Your task to perform on an android device: Empty the shopping cart on amazon.com. Image 0: 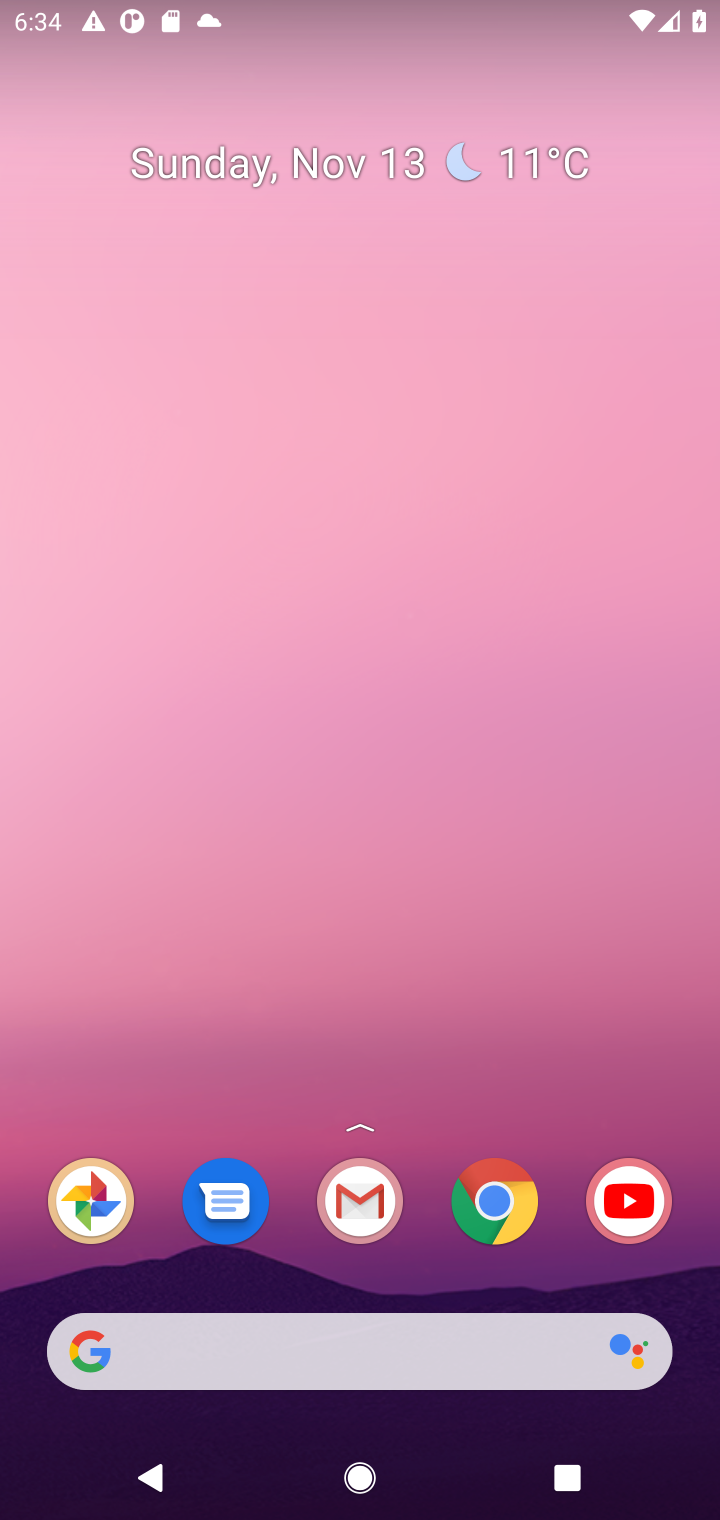
Step 0: drag from (431, 1249) to (273, 279)
Your task to perform on an android device: Empty the shopping cart on amazon.com. Image 1: 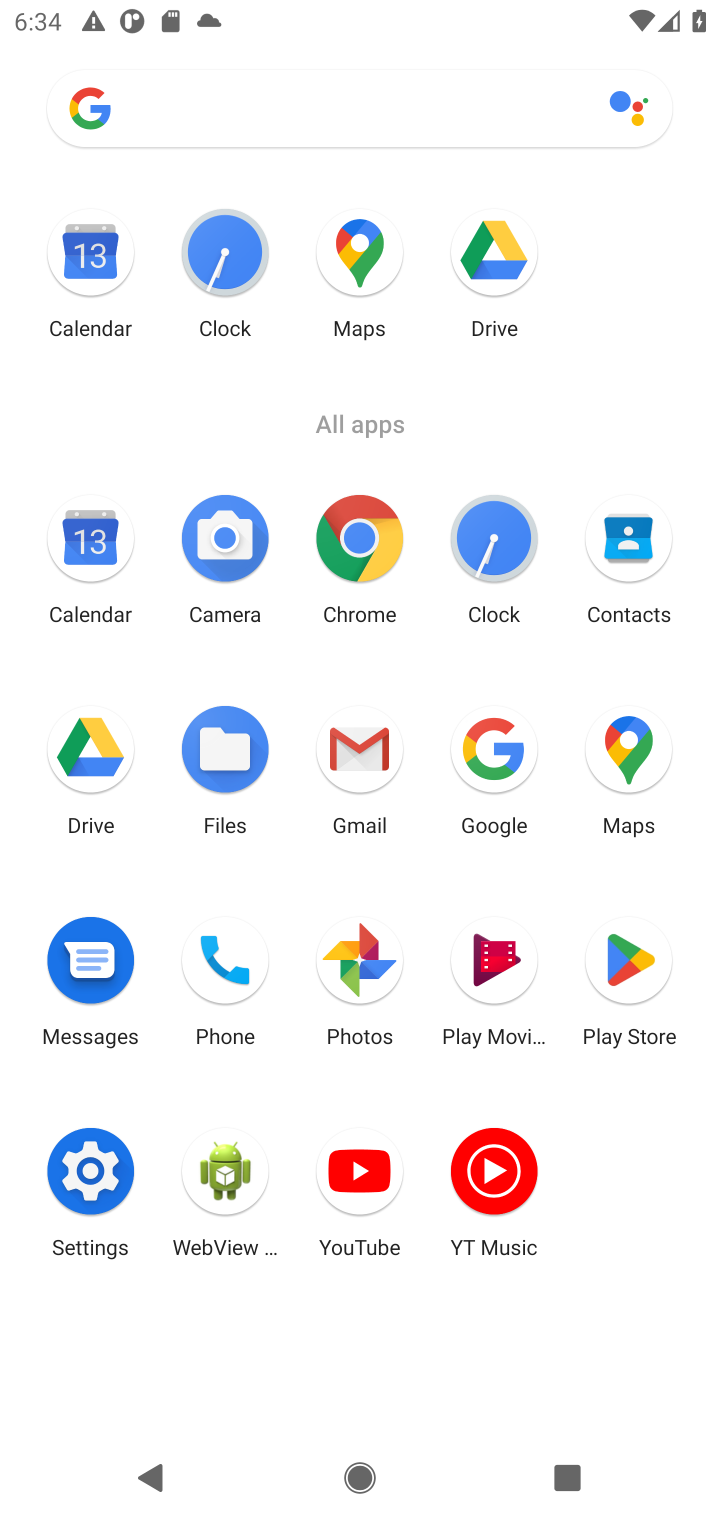
Step 1: click (362, 533)
Your task to perform on an android device: Empty the shopping cart on amazon.com. Image 2: 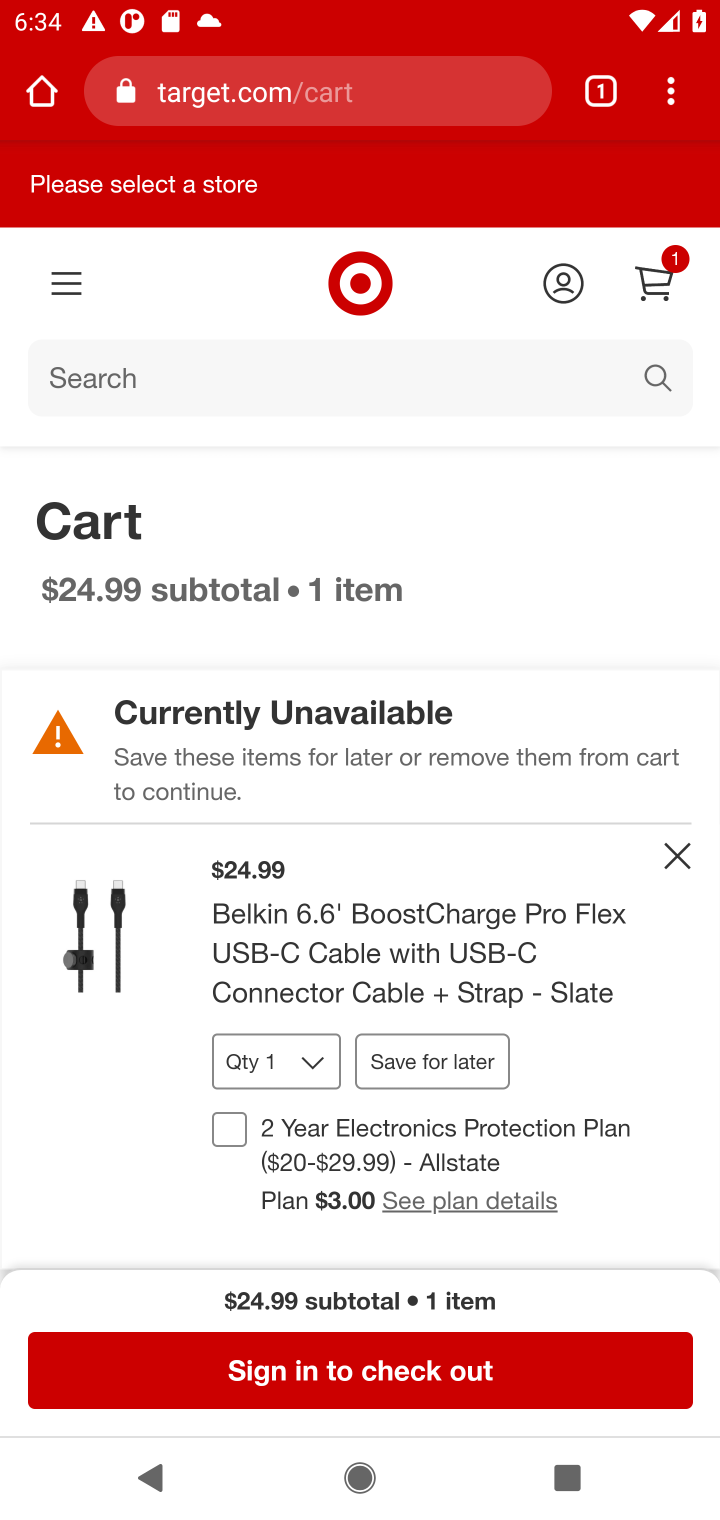
Step 2: click (285, 92)
Your task to perform on an android device: Empty the shopping cart on amazon.com. Image 3: 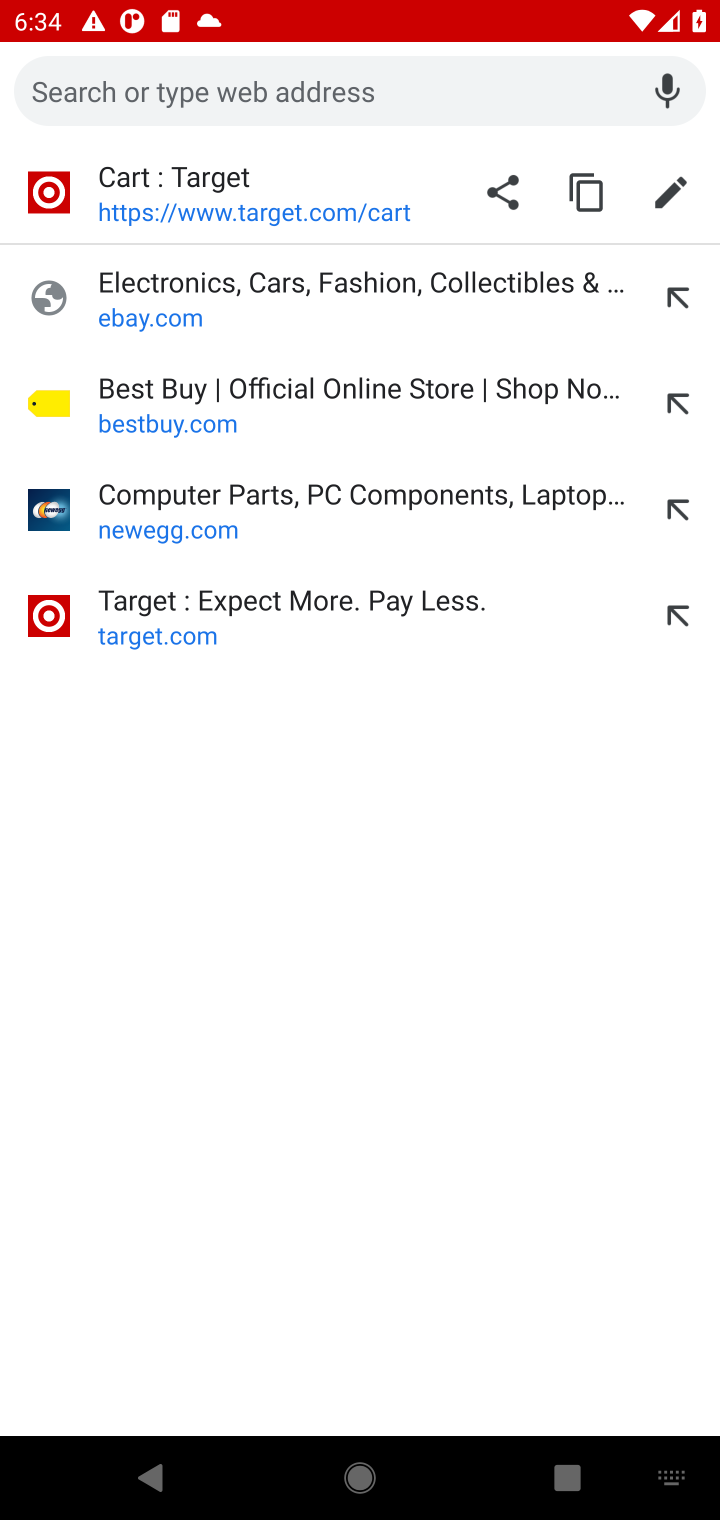
Step 3: type "amazon.com"
Your task to perform on an android device: Empty the shopping cart on amazon.com. Image 4: 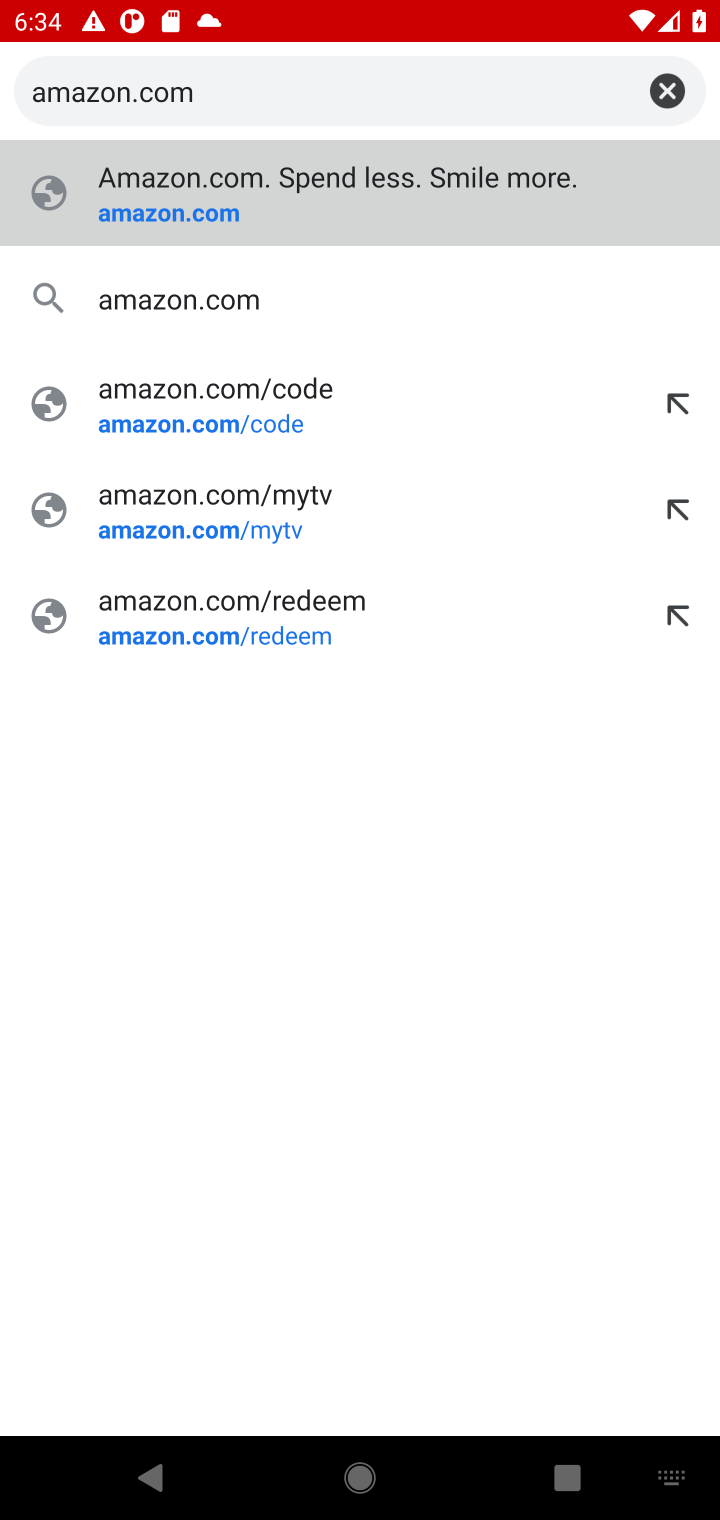
Step 4: press enter
Your task to perform on an android device: Empty the shopping cart on amazon.com. Image 5: 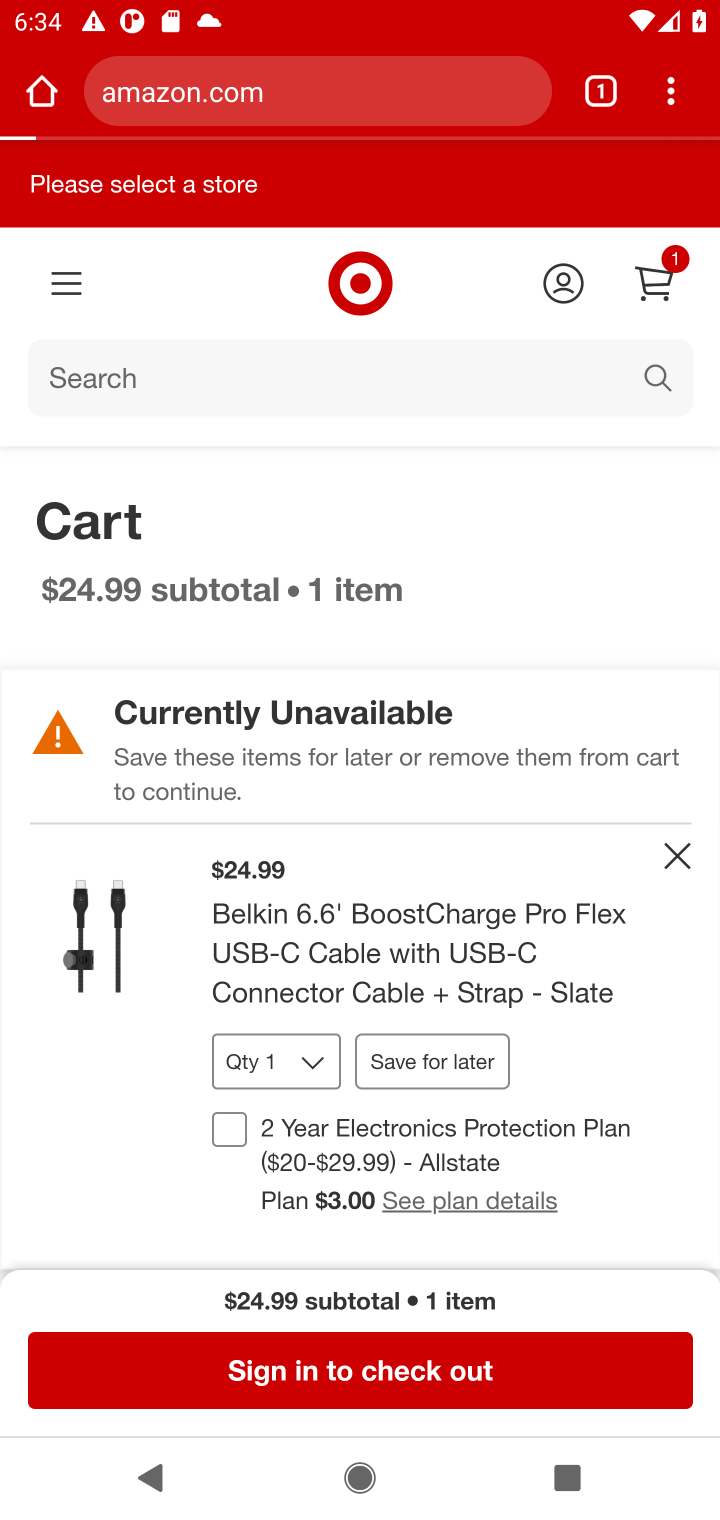
Step 5: press enter
Your task to perform on an android device: Empty the shopping cart on amazon.com. Image 6: 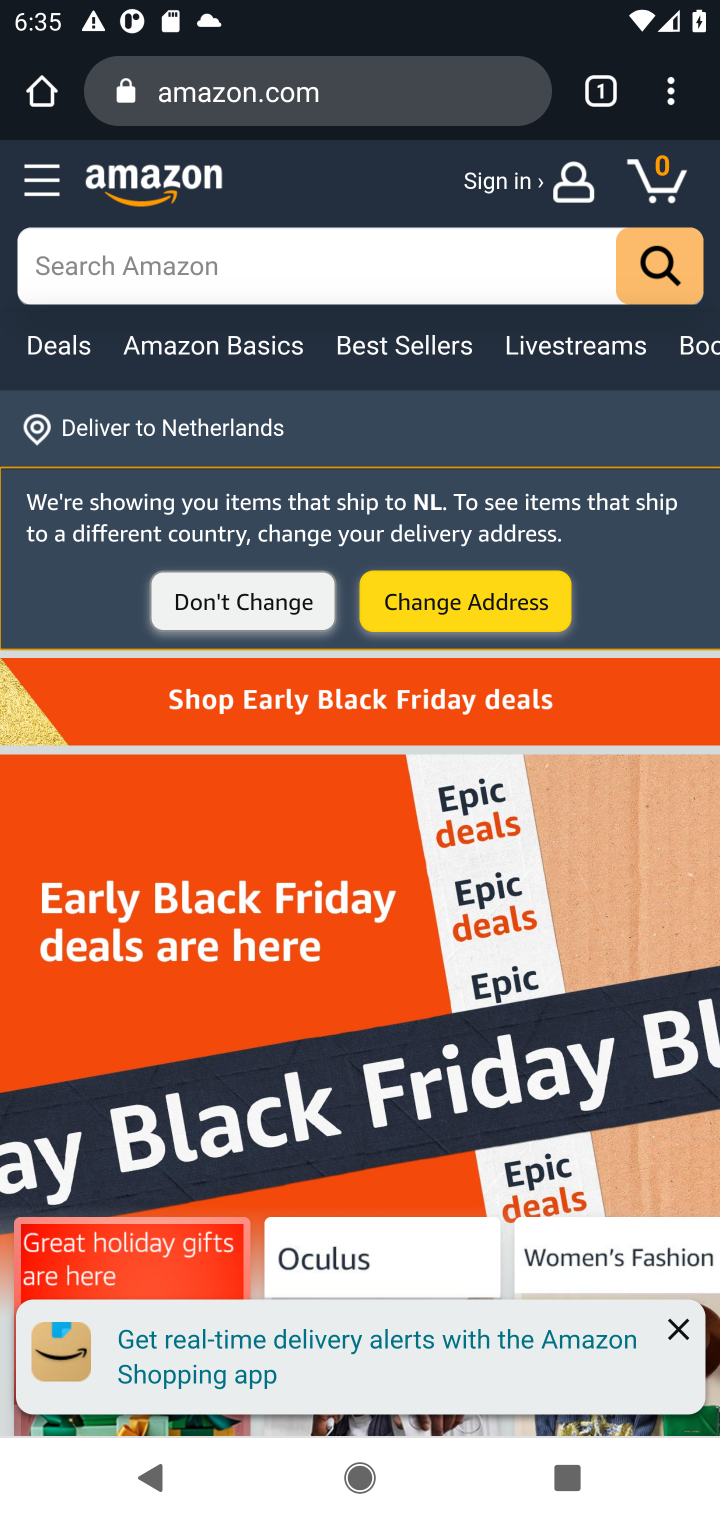
Step 6: click (636, 174)
Your task to perform on an android device: Empty the shopping cart on amazon.com. Image 7: 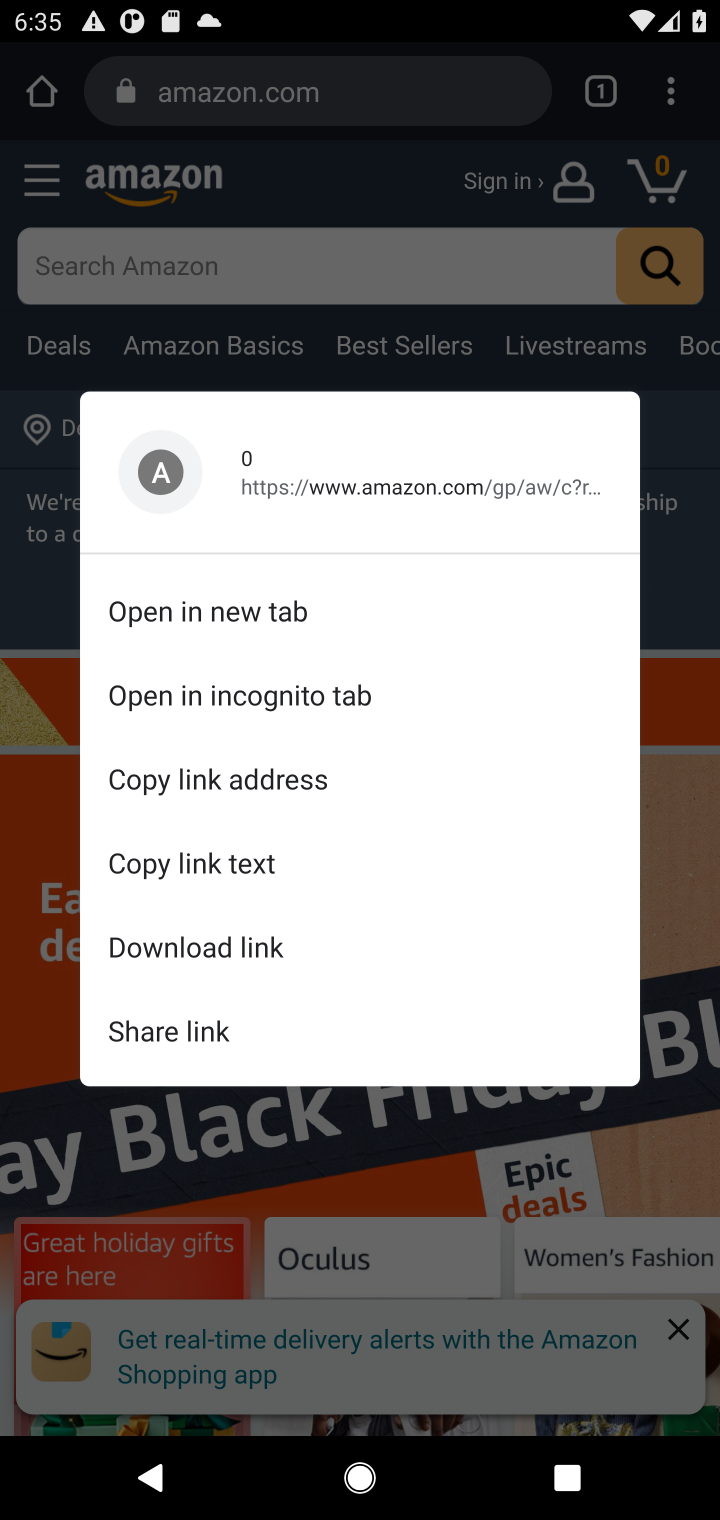
Step 7: click (625, 157)
Your task to perform on an android device: Empty the shopping cart on amazon.com. Image 8: 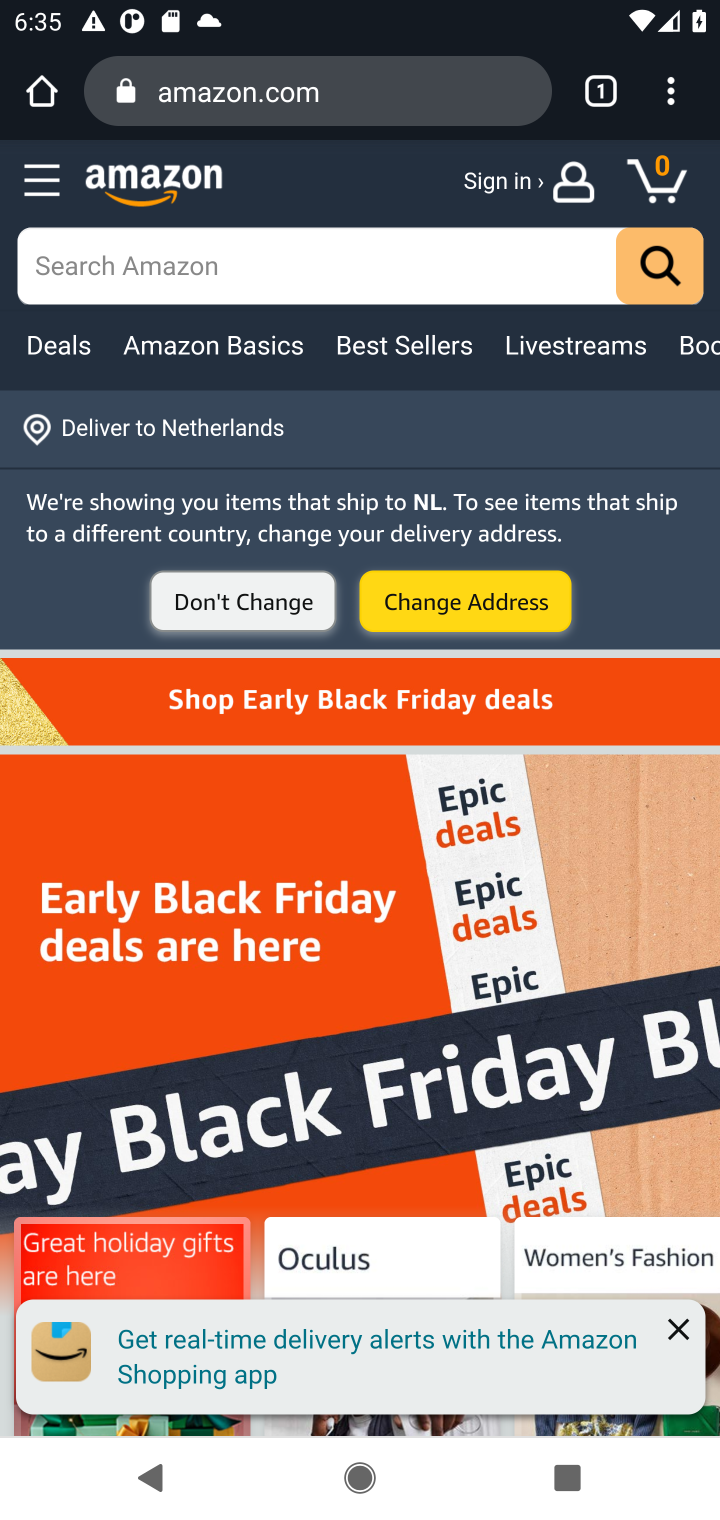
Step 8: click (668, 191)
Your task to perform on an android device: Empty the shopping cart on amazon.com. Image 9: 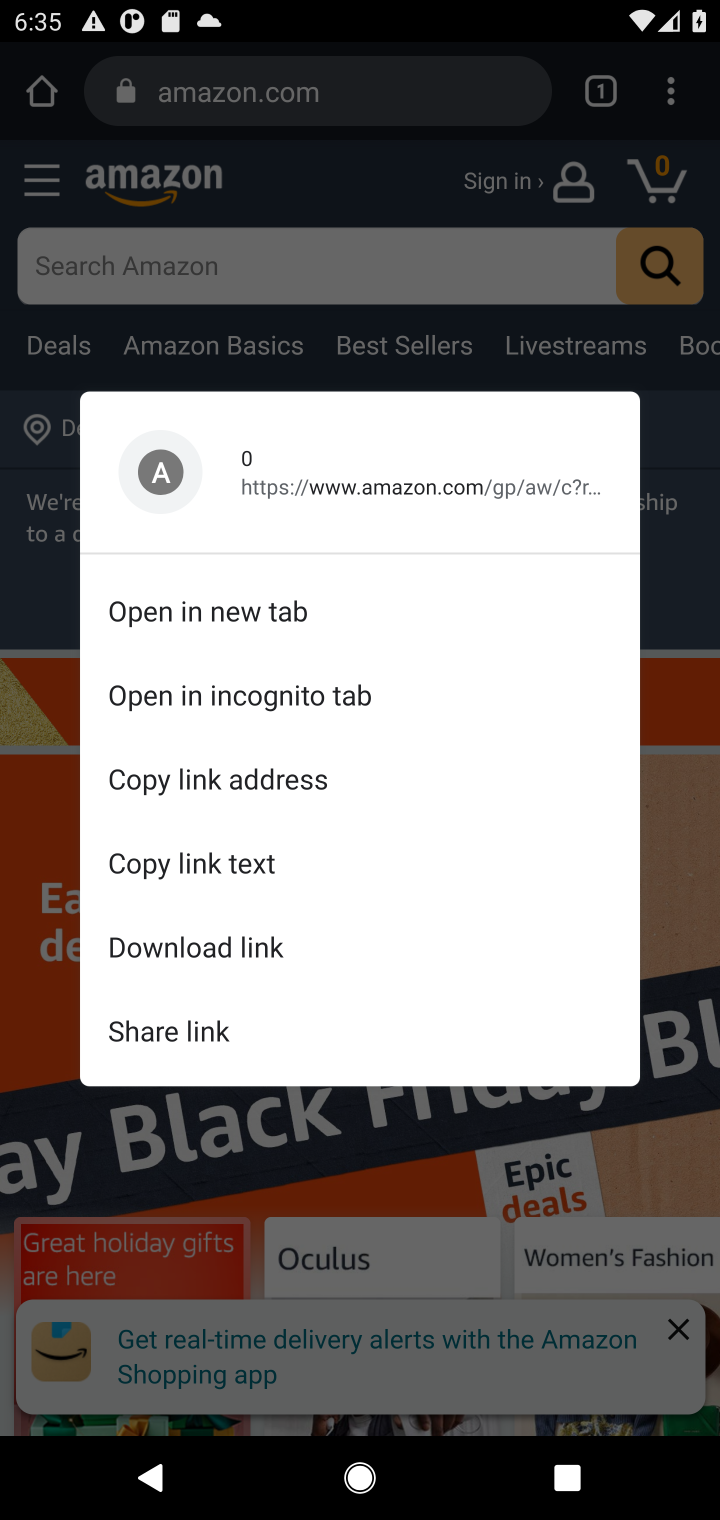
Step 9: click (241, 315)
Your task to perform on an android device: Empty the shopping cart on amazon.com. Image 10: 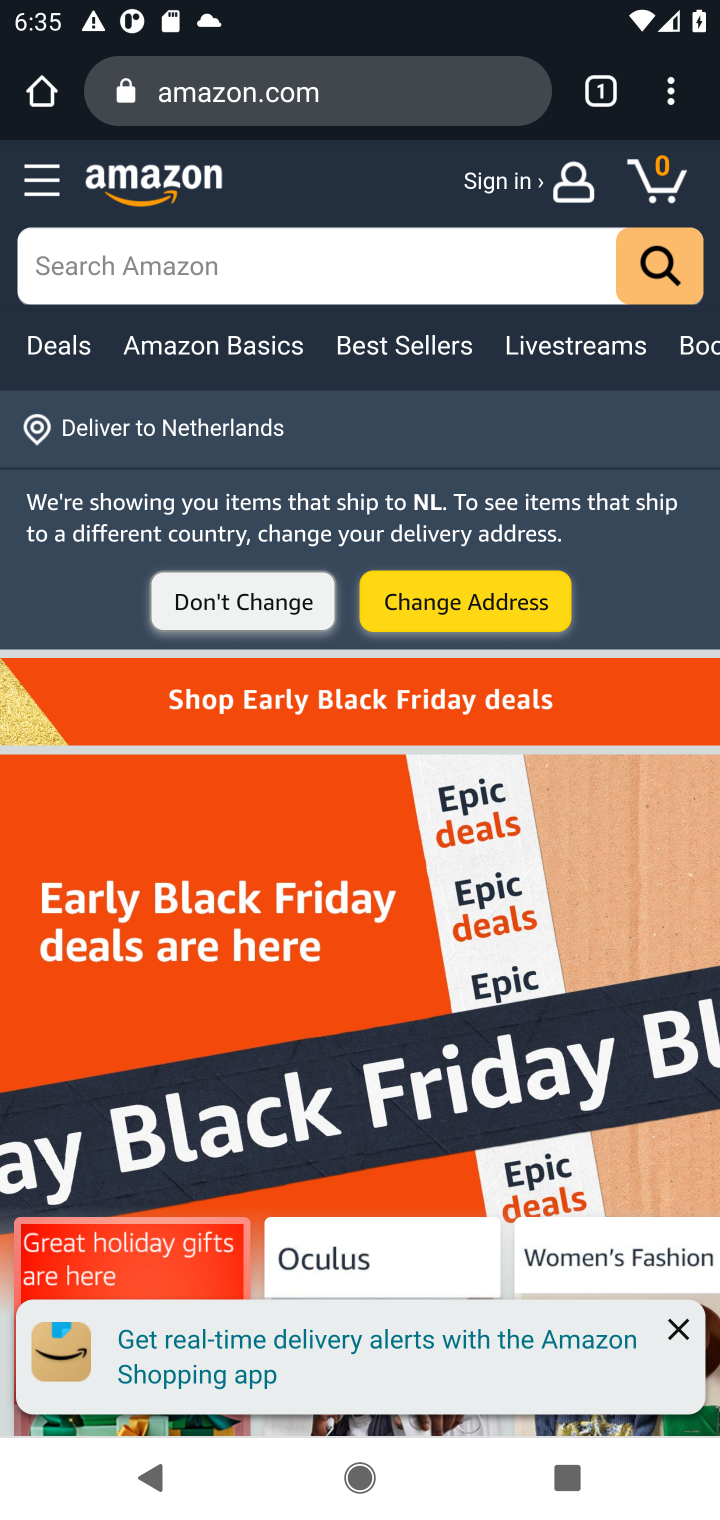
Step 10: click (671, 189)
Your task to perform on an android device: Empty the shopping cart on amazon.com. Image 11: 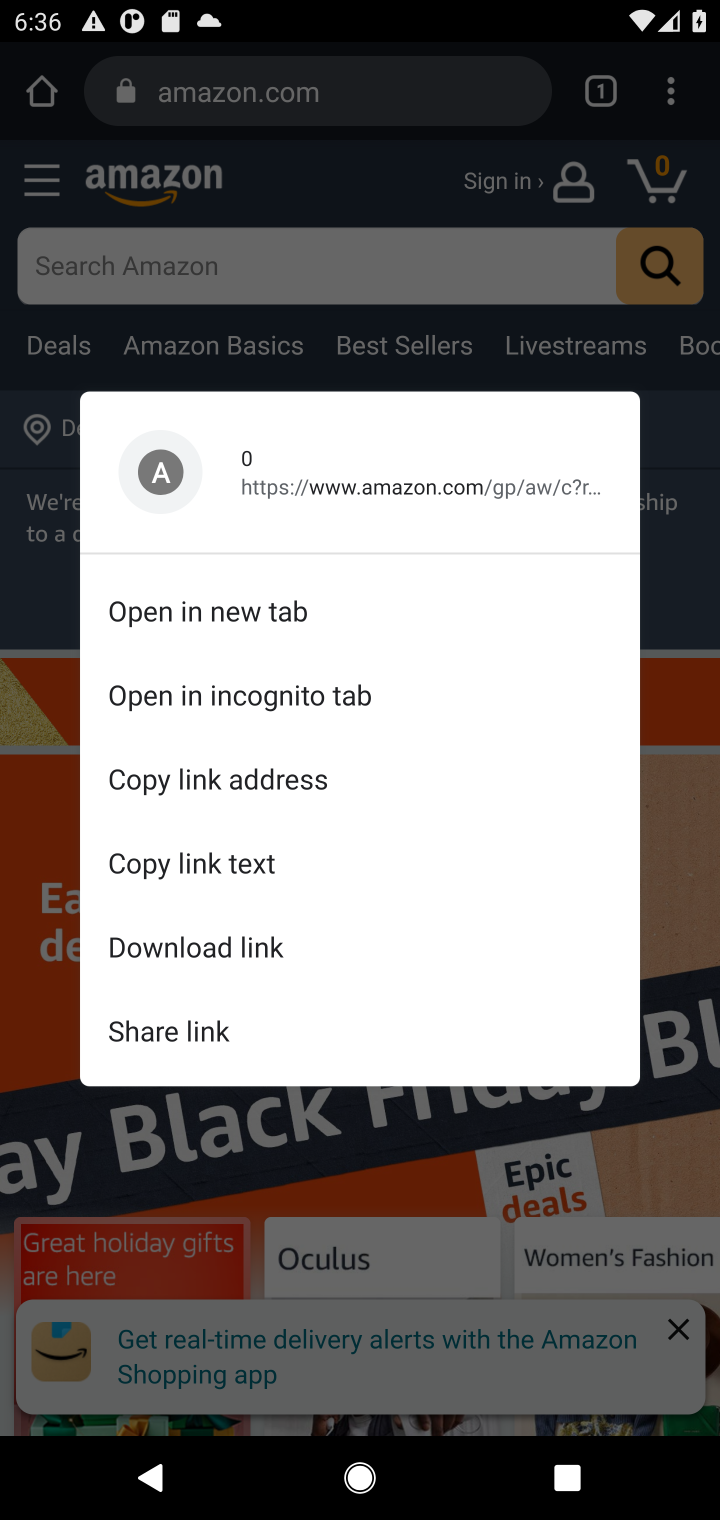
Step 11: click (407, 163)
Your task to perform on an android device: Empty the shopping cart on amazon.com. Image 12: 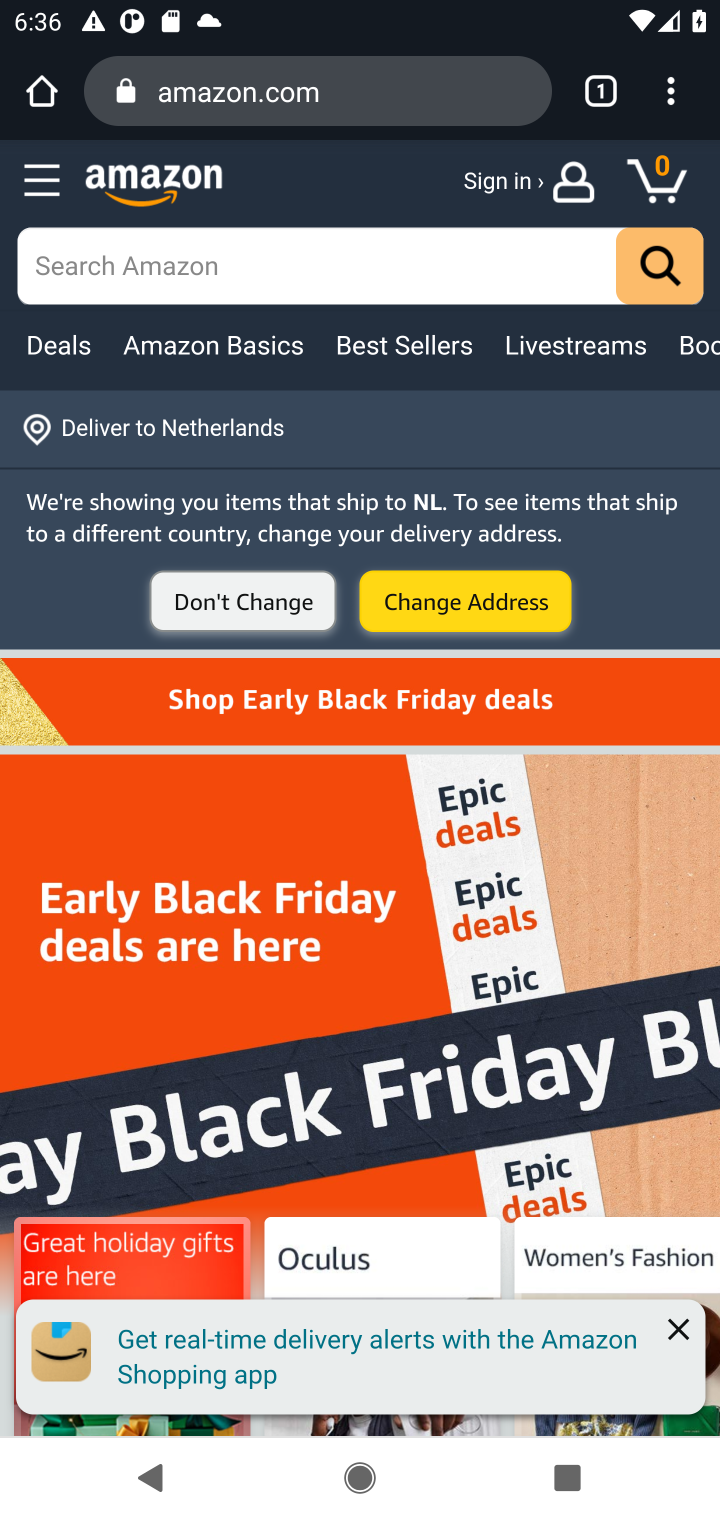
Step 12: click (656, 182)
Your task to perform on an android device: Empty the shopping cart on amazon.com. Image 13: 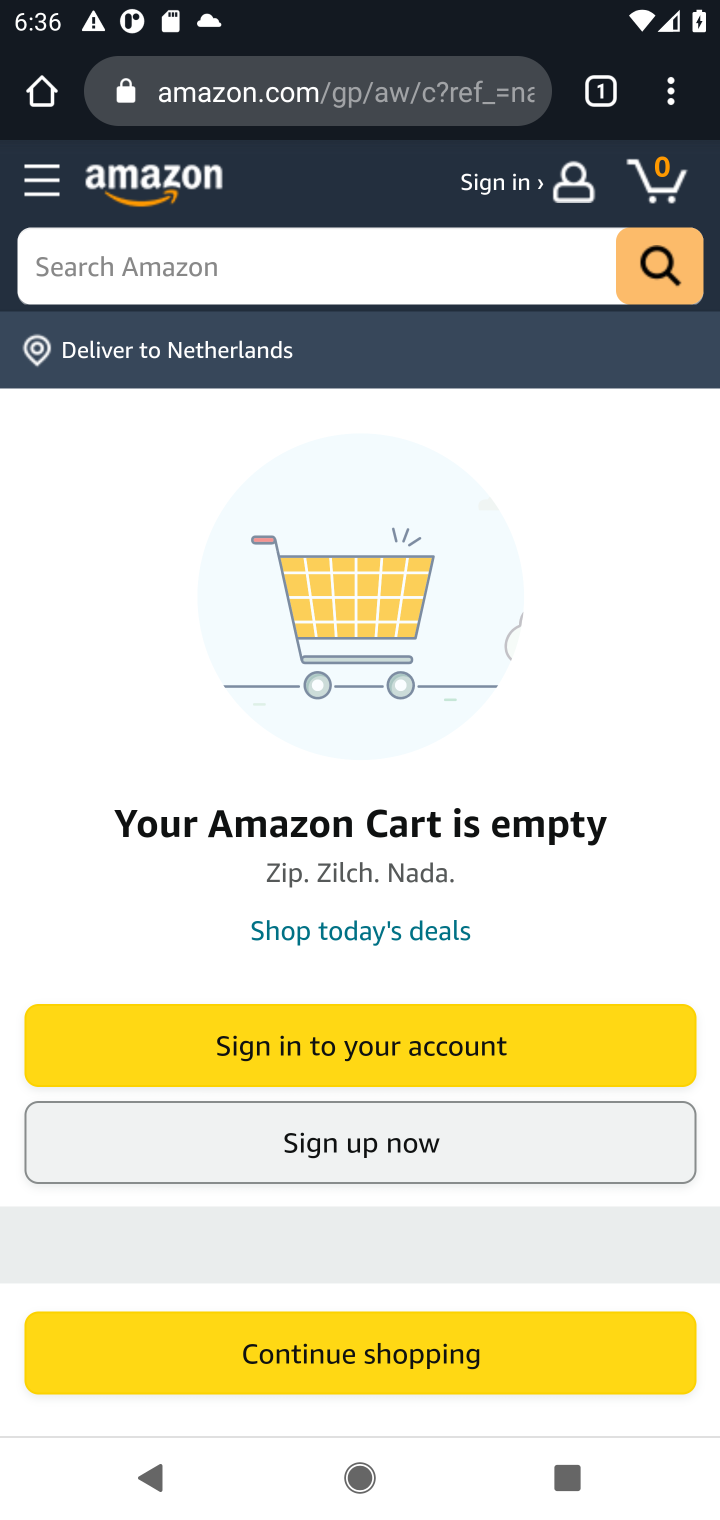
Step 13: task complete